Your task to perform on an android device: Open Google Chrome and open the bookmarks view Image 0: 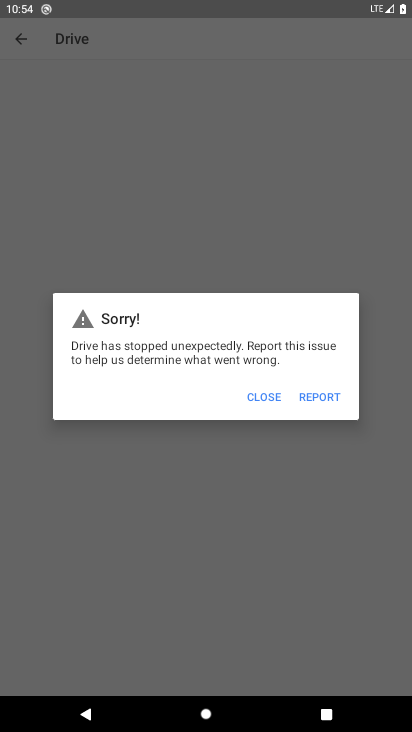
Step 0: press home button
Your task to perform on an android device: Open Google Chrome and open the bookmarks view Image 1: 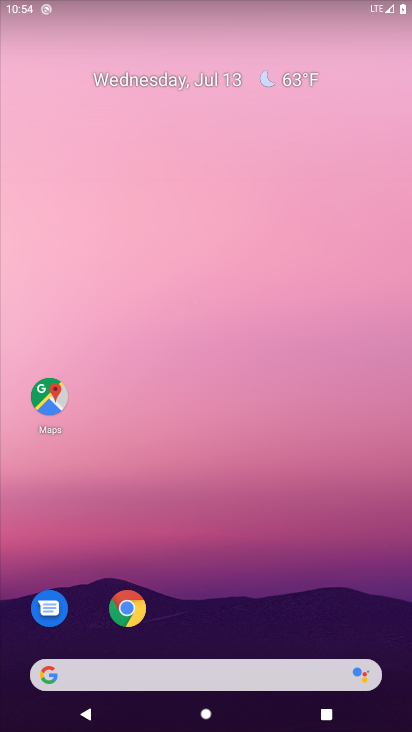
Step 1: drag from (271, 533) to (355, 92)
Your task to perform on an android device: Open Google Chrome and open the bookmarks view Image 2: 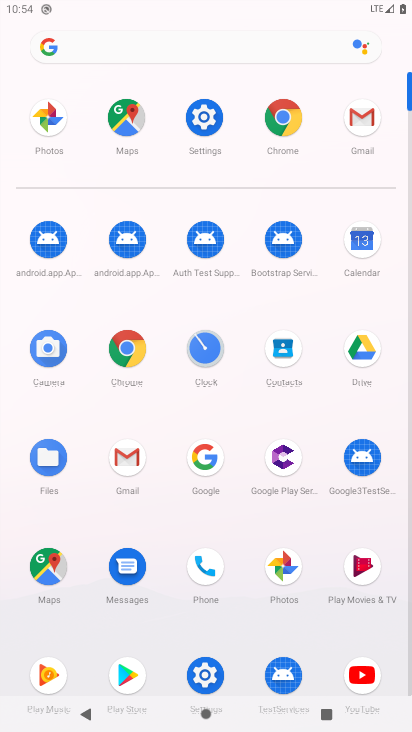
Step 2: click (120, 347)
Your task to perform on an android device: Open Google Chrome and open the bookmarks view Image 3: 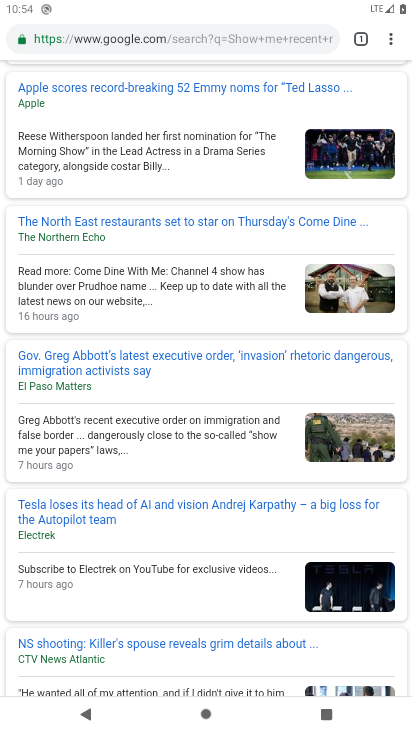
Step 3: task complete